Your task to perform on an android device: See recent photos Image 0: 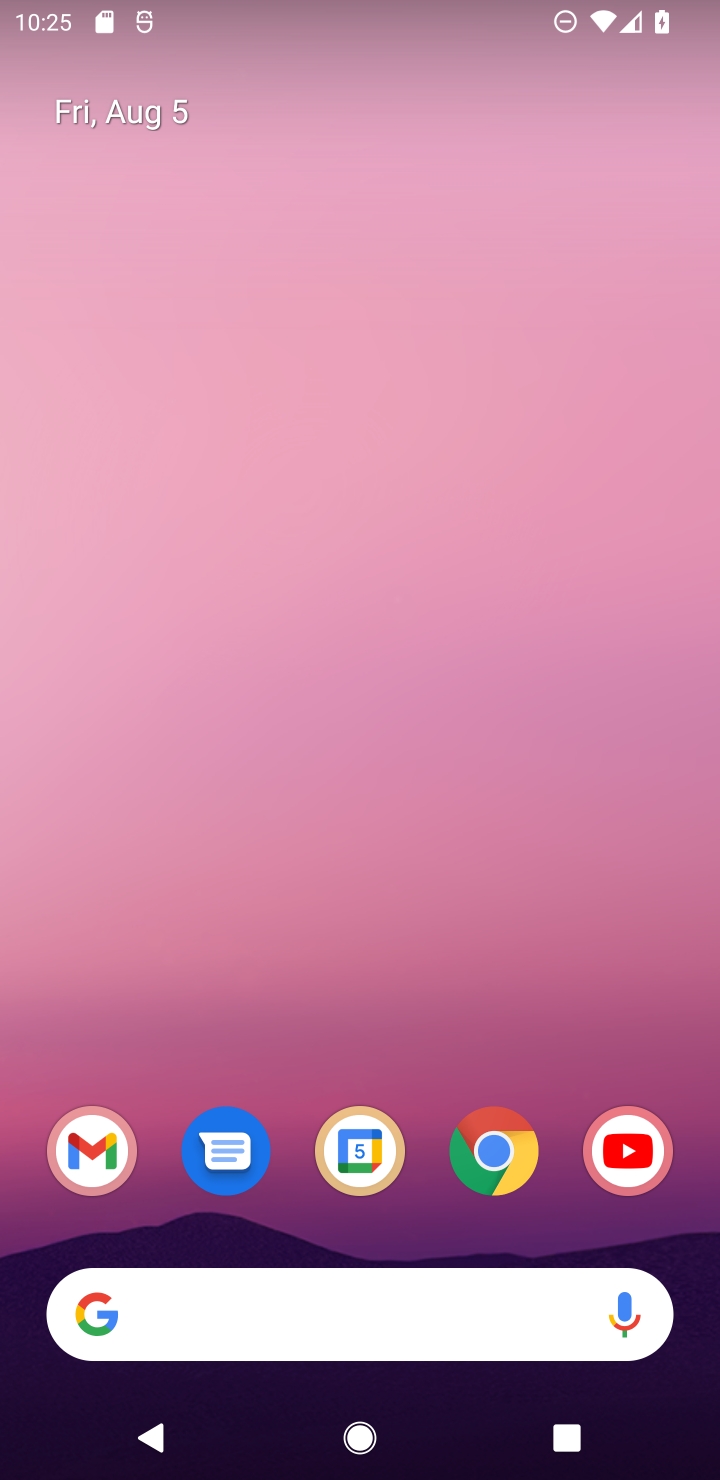
Step 0: click (408, 1202)
Your task to perform on an android device: See recent photos Image 1: 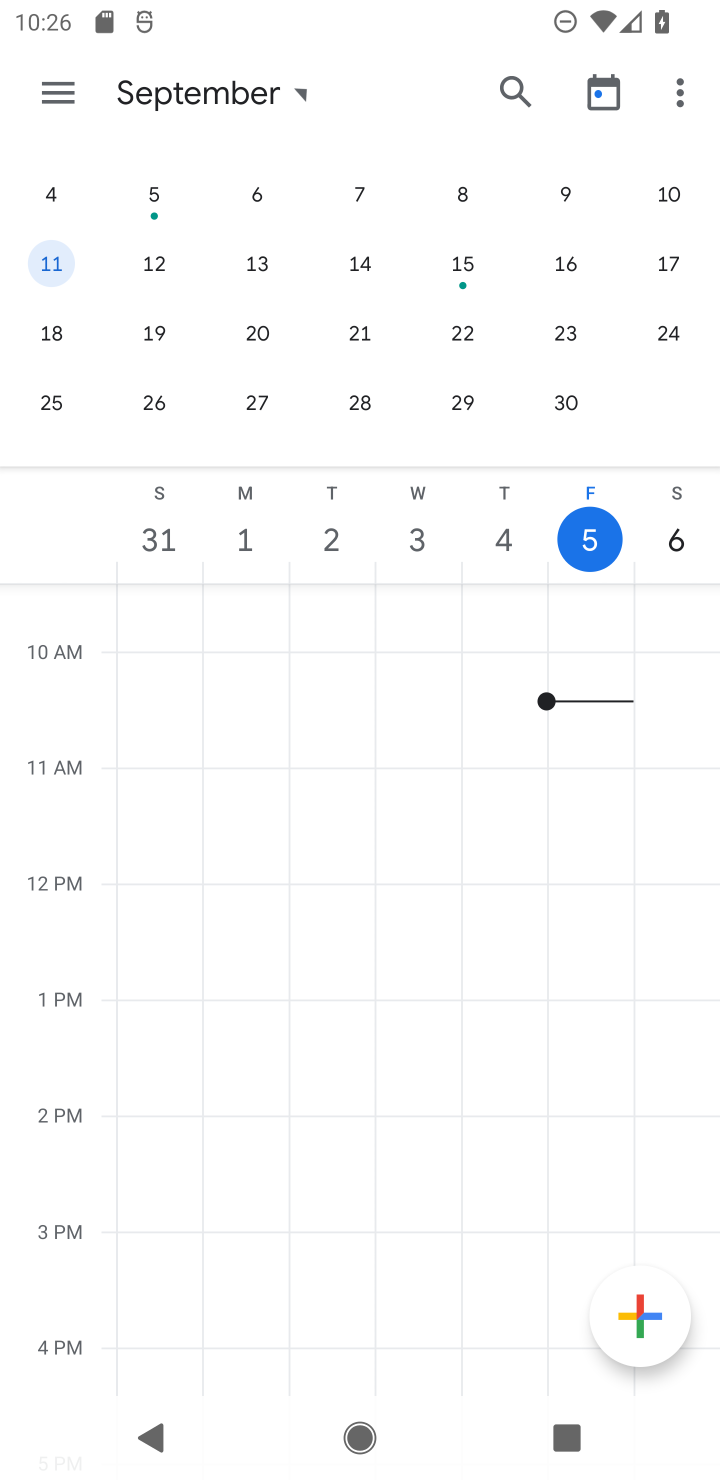
Step 1: press home button
Your task to perform on an android device: See recent photos Image 2: 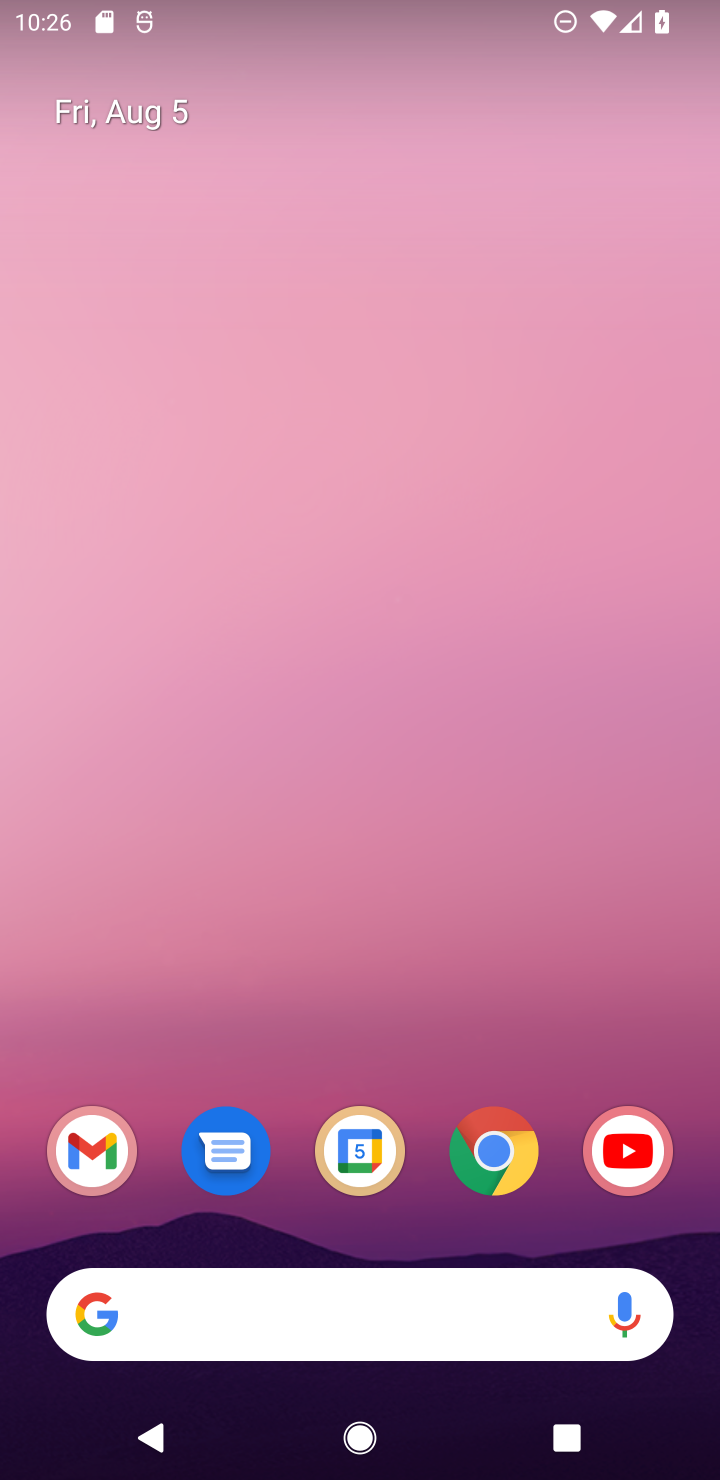
Step 2: drag from (397, 753) to (423, 434)
Your task to perform on an android device: See recent photos Image 3: 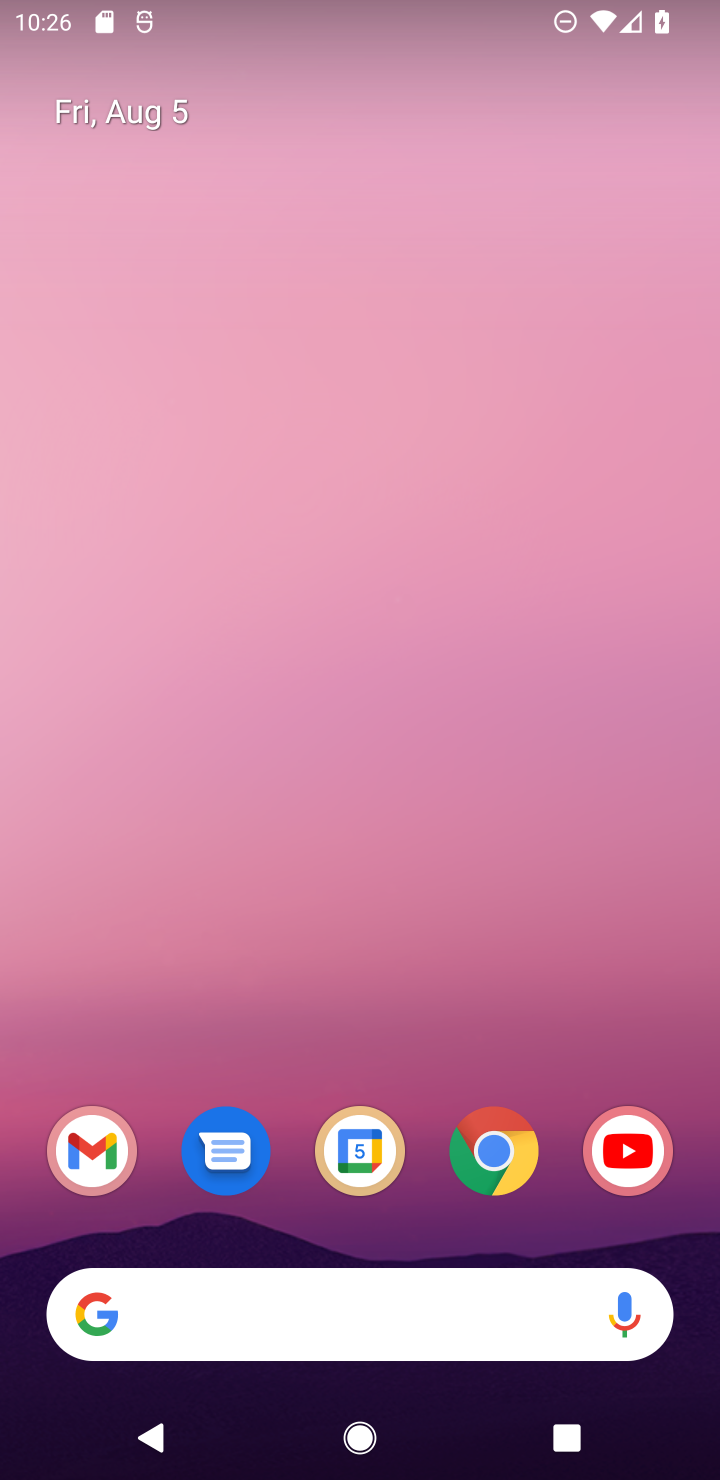
Step 3: drag from (305, 1165) to (182, 158)
Your task to perform on an android device: See recent photos Image 4: 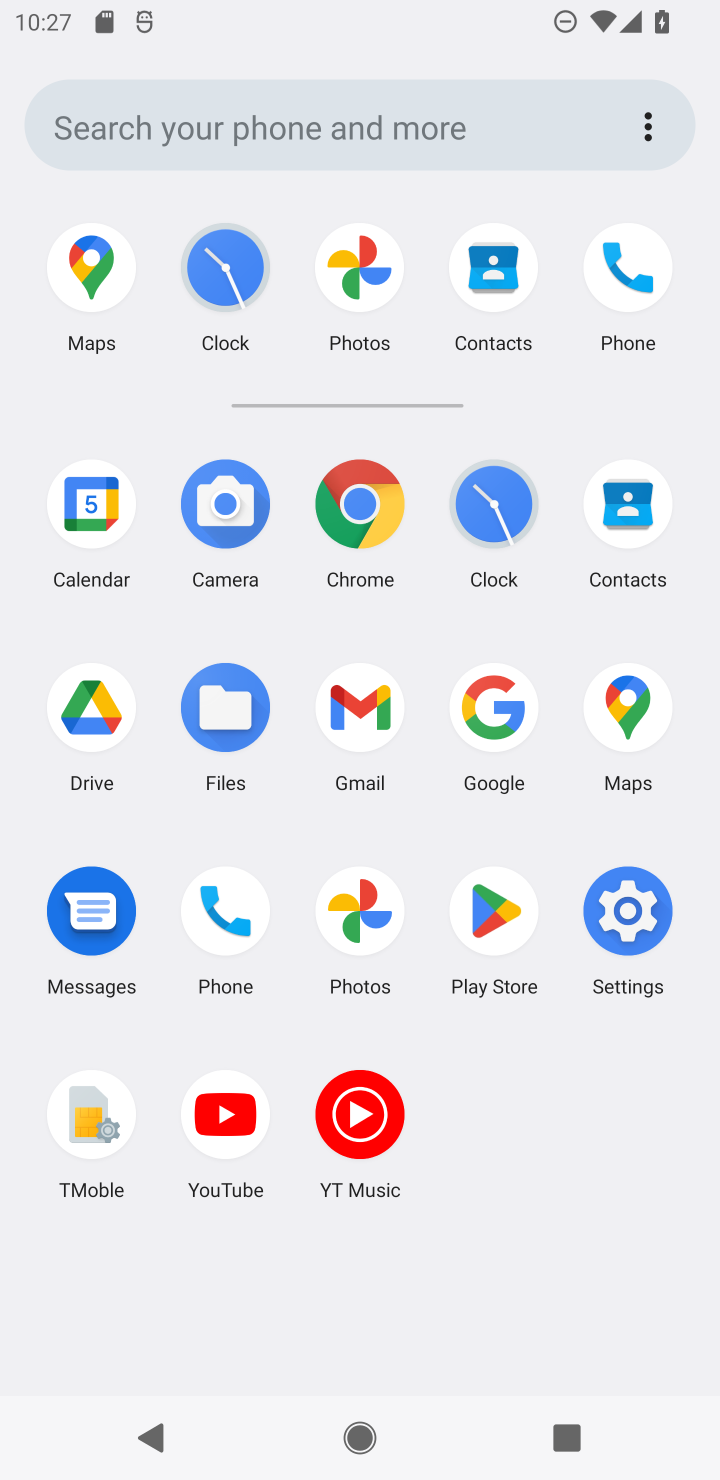
Step 4: click (357, 949)
Your task to perform on an android device: See recent photos Image 5: 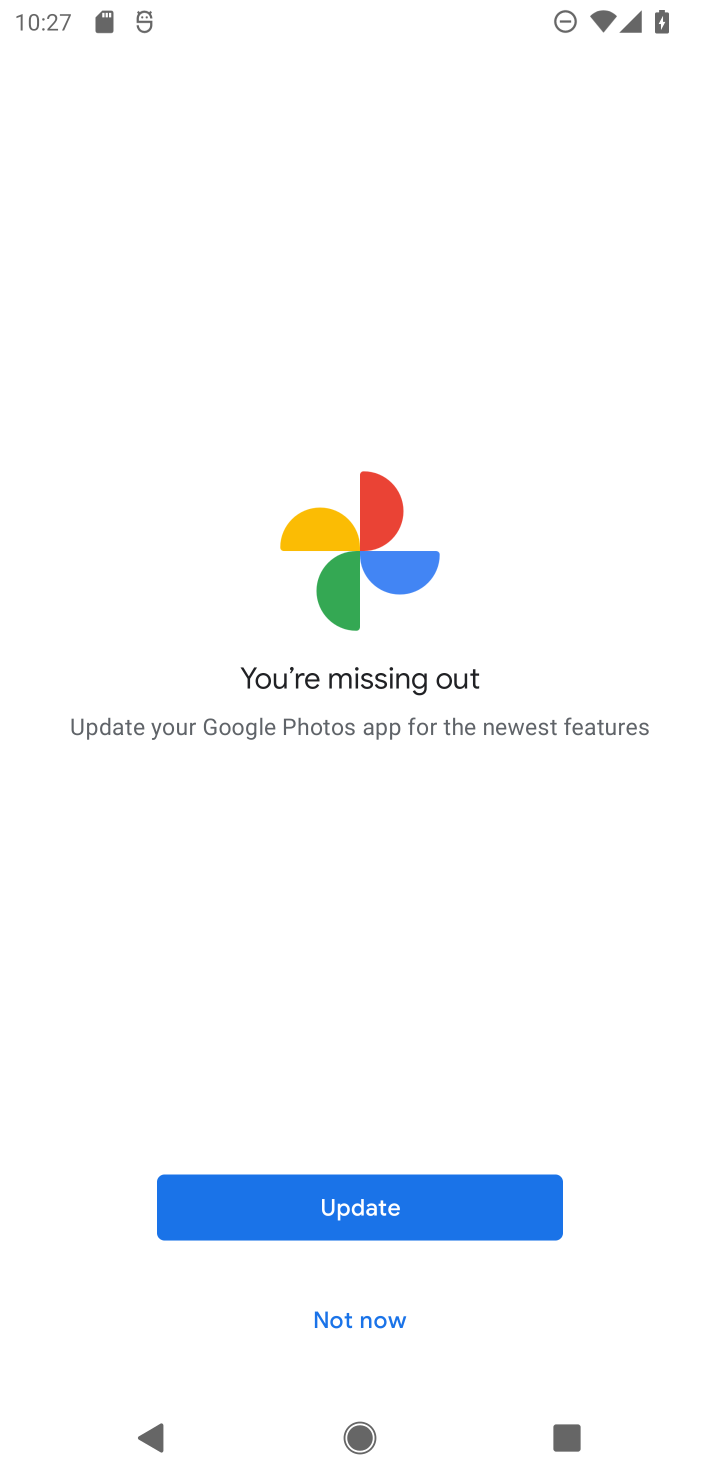
Step 5: click (395, 1319)
Your task to perform on an android device: See recent photos Image 6: 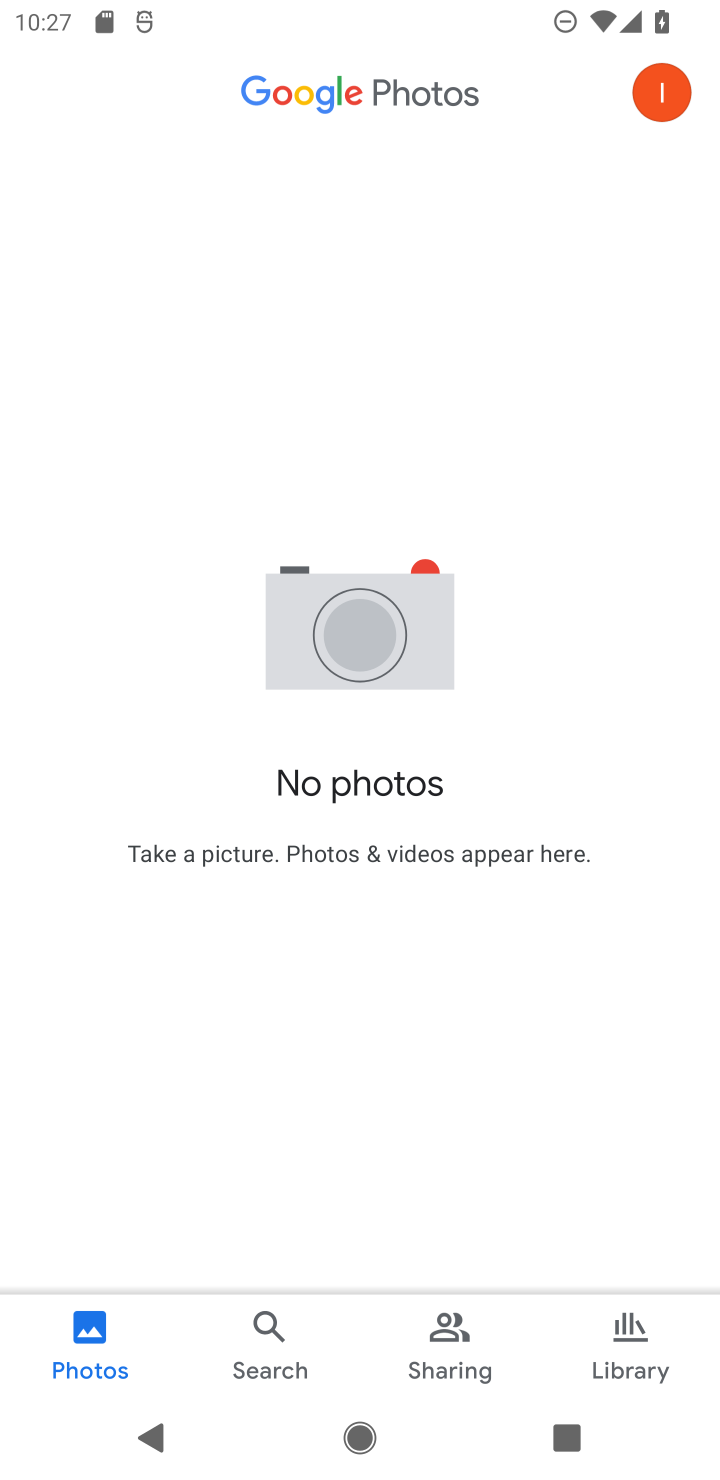
Step 6: click (655, 1356)
Your task to perform on an android device: See recent photos Image 7: 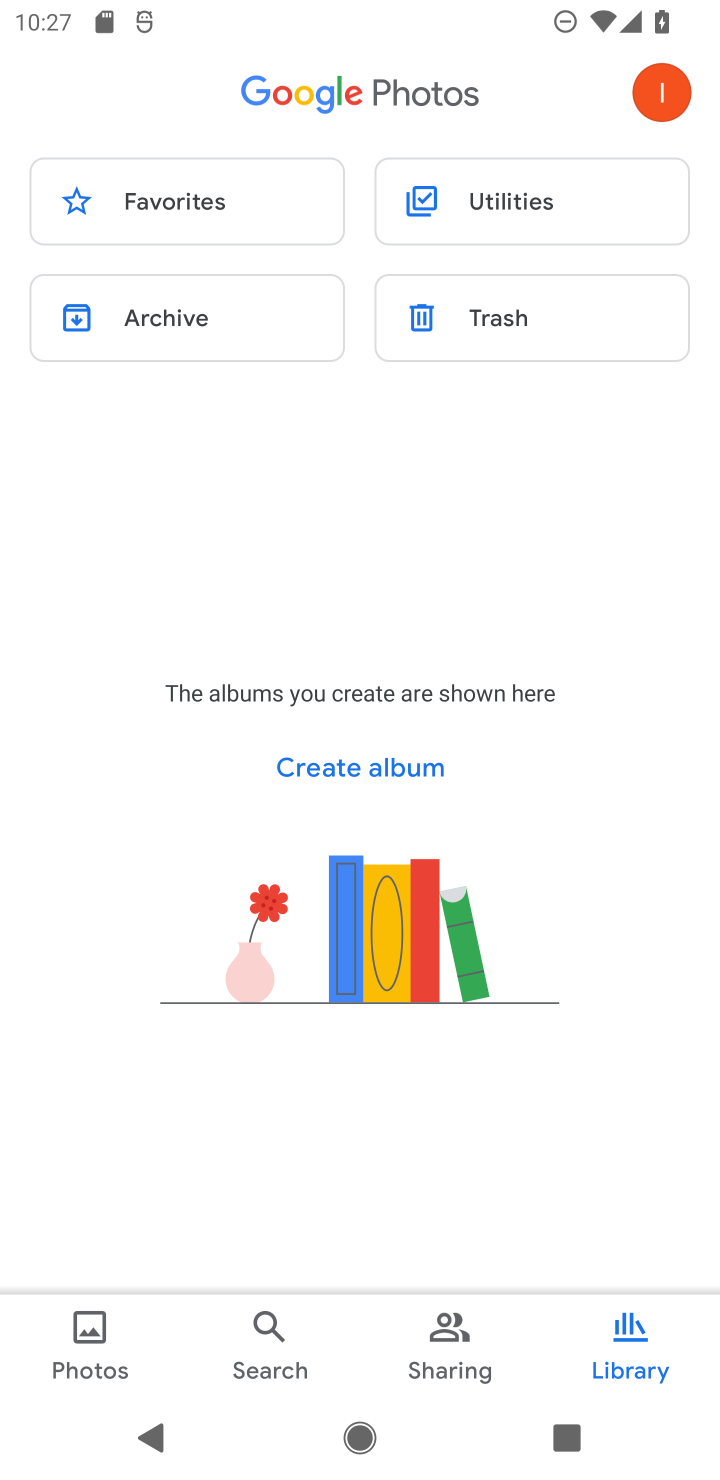
Step 7: task complete